Your task to perform on an android device: Toggle the flashlight Image 0: 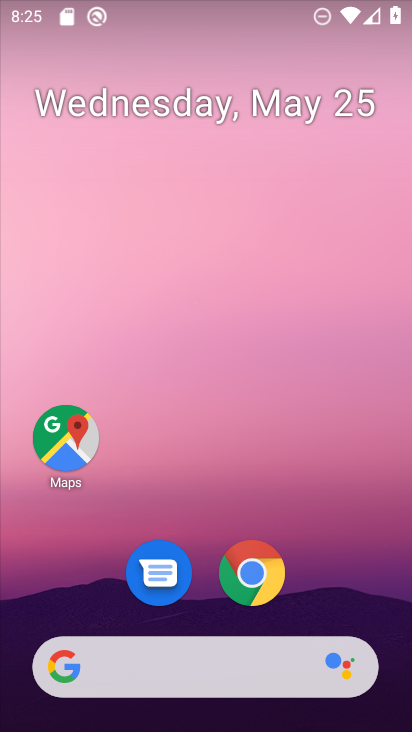
Step 0: press home button
Your task to perform on an android device: Toggle the flashlight Image 1: 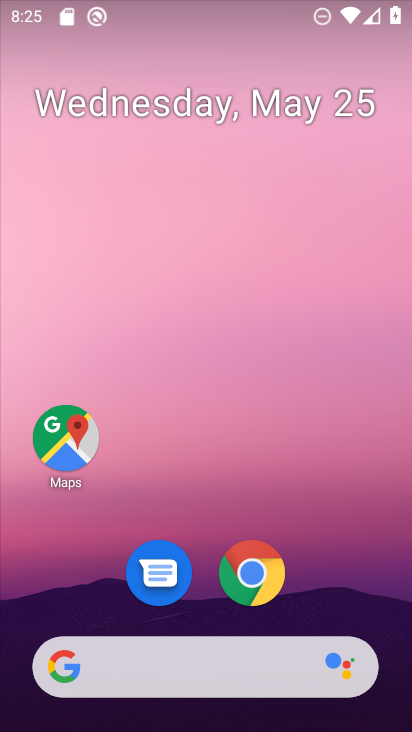
Step 1: drag from (392, 702) to (386, 237)
Your task to perform on an android device: Toggle the flashlight Image 2: 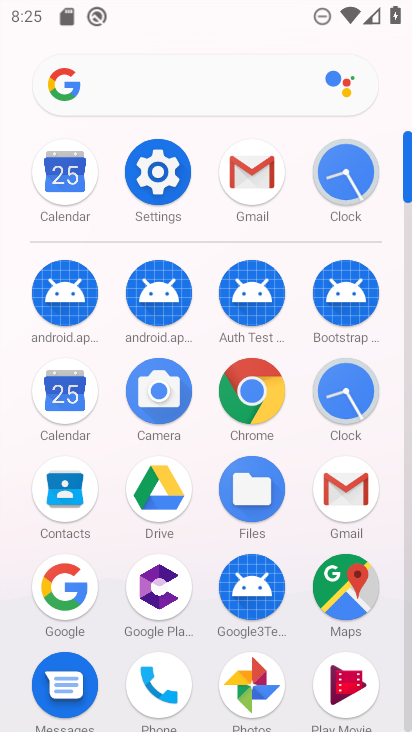
Step 2: click (148, 175)
Your task to perform on an android device: Toggle the flashlight Image 3: 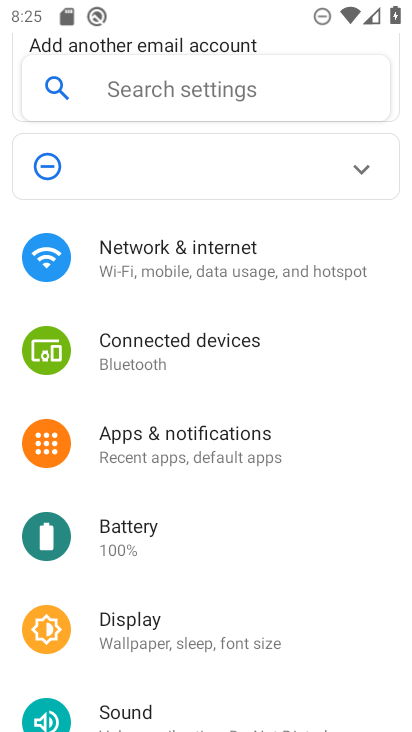
Step 3: click (122, 631)
Your task to perform on an android device: Toggle the flashlight Image 4: 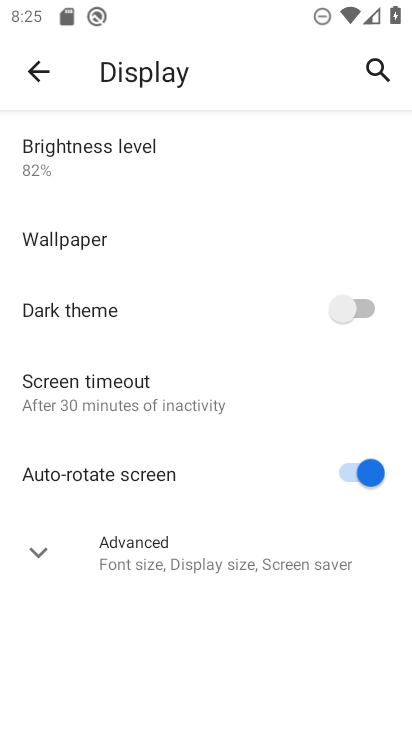
Step 4: click (33, 551)
Your task to perform on an android device: Toggle the flashlight Image 5: 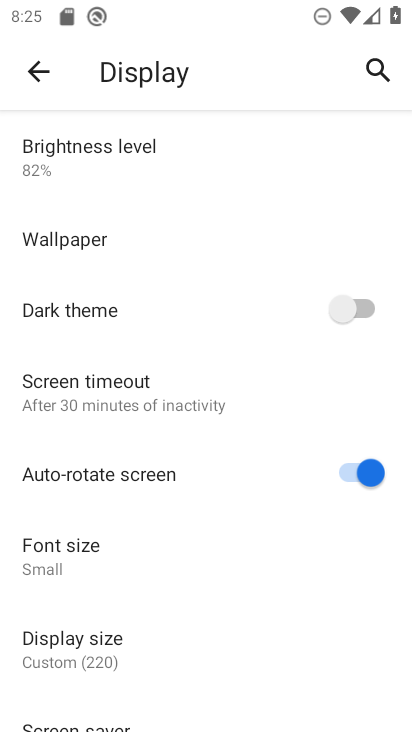
Step 5: task complete